Your task to perform on an android device: turn off priority inbox in the gmail app Image 0: 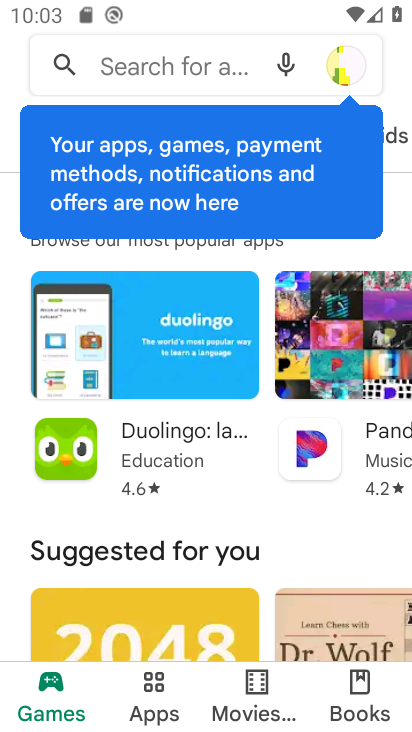
Step 0: press home button
Your task to perform on an android device: turn off priority inbox in the gmail app Image 1: 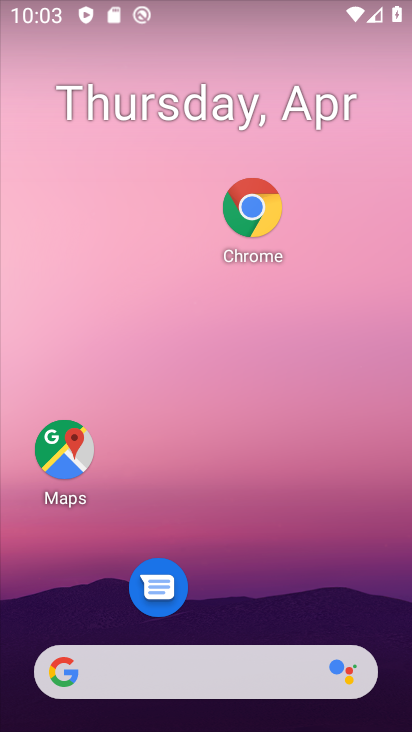
Step 1: drag from (213, 597) to (232, 132)
Your task to perform on an android device: turn off priority inbox in the gmail app Image 2: 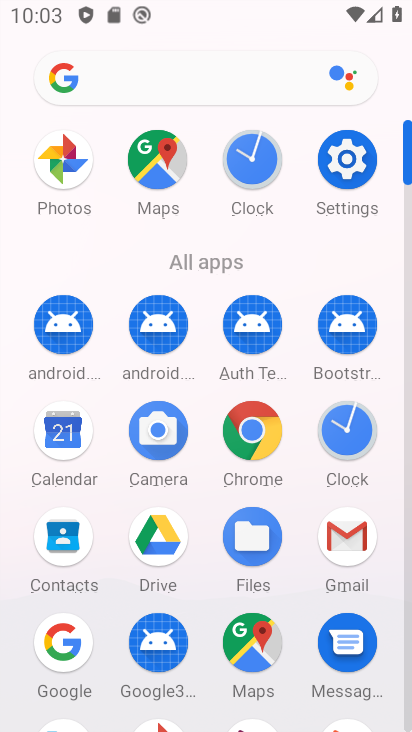
Step 2: click (335, 532)
Your task to perform on an android device: turn off priority inbox in the gmail app Image 3: 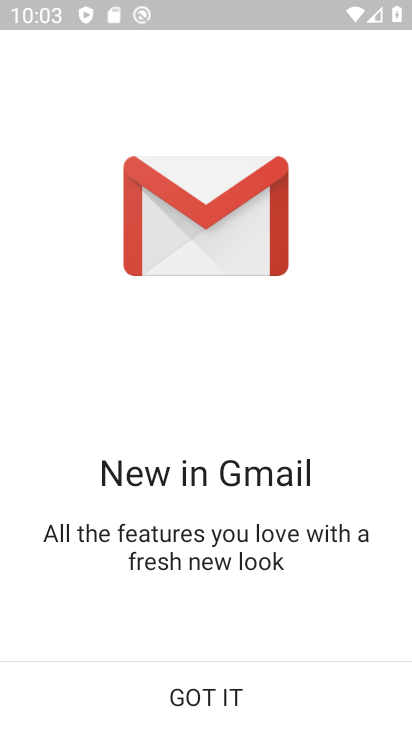
Step 3: click (222, 700)
Your task to perform on an android device: turn off priority inbox in the gmail app Image 4: 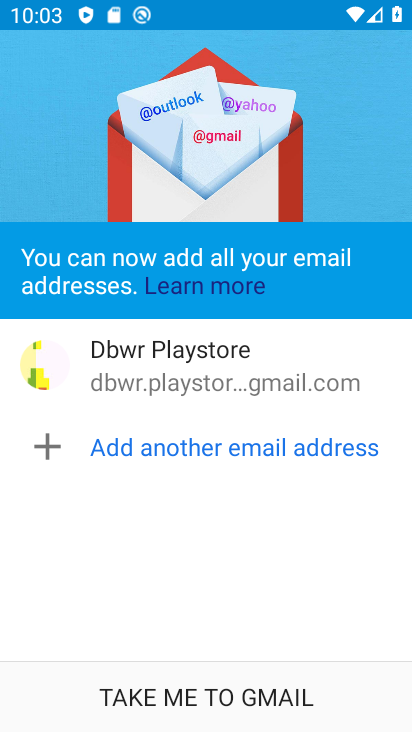
Step 4: click (222, 700)
Your task to perform on an android device: turn off priority inbox in the gmail app Image 5: 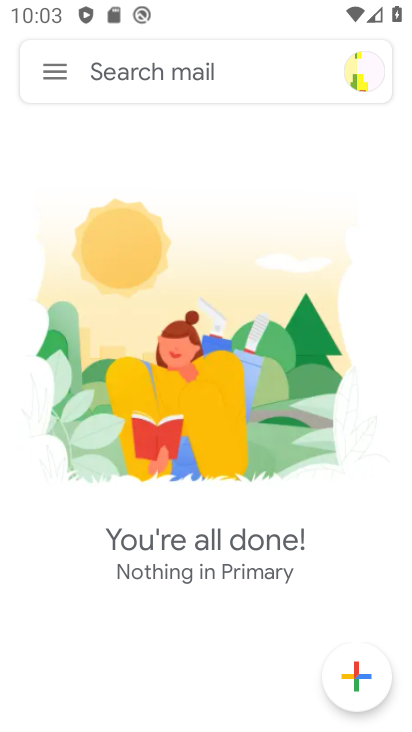
Step 5: click (50, 84)
Your task to perform on an android device: turn off priority inbox in the gmail app Image 6: 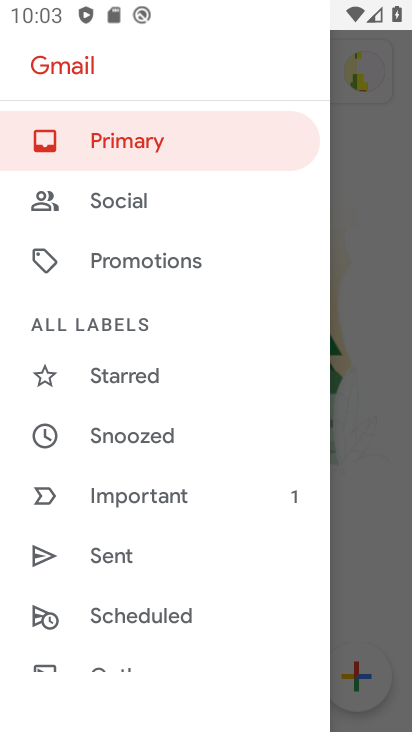
Step 6: drag from (166, 596) to (192, 277)
Your task to perform on an android device: turn off priority inbox in the gmail app Image 7: 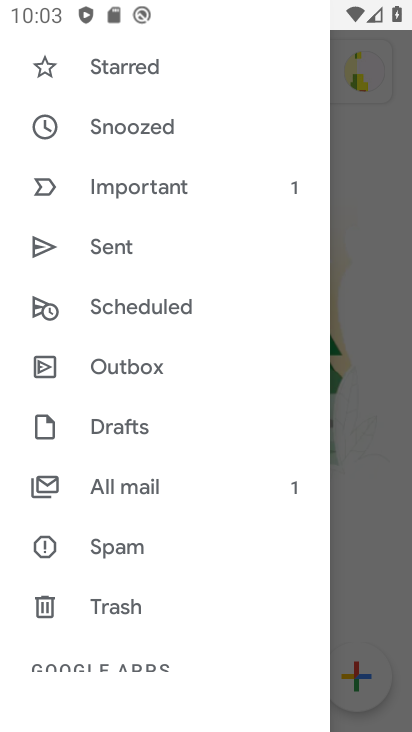
Step 7: drag from (164, 627) to (198, 304)
Your task to perform on an android device: turn off priority inbox in the gmail app Image 8: 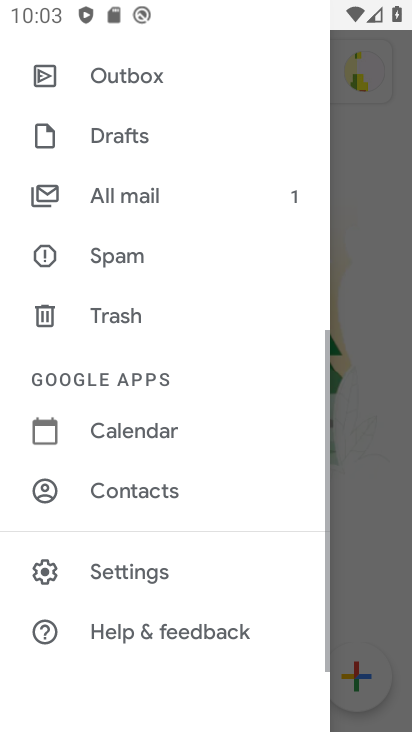
Step 8: click (143, 580)
Your task to perform on an android device: turn off priority inbox in the gmail app Image 9: 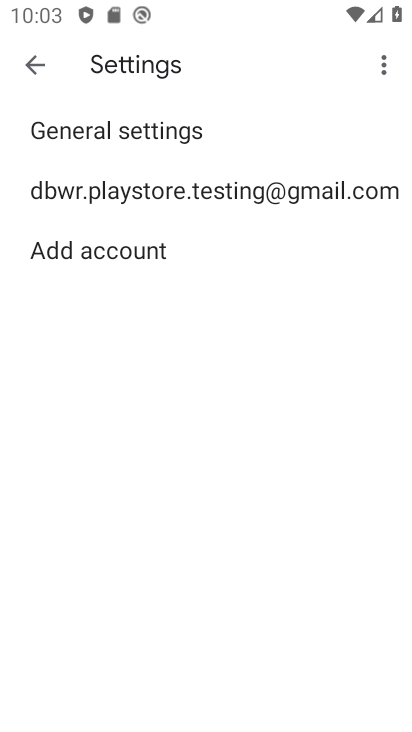
Step 9: click (167, 201)
Your task to perform on an android device: turn off priority inbox in the gmail app Image 10: 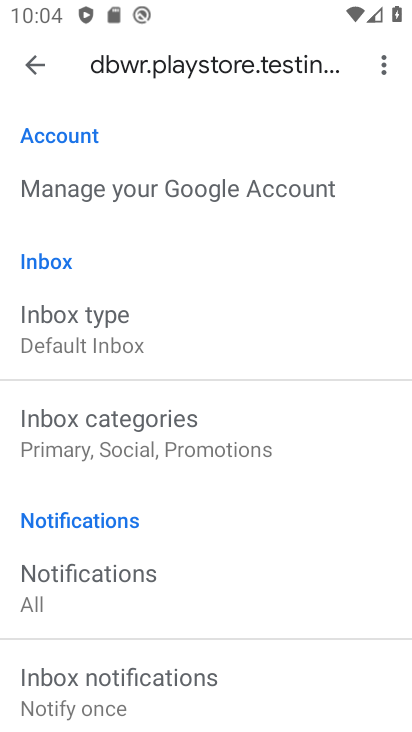
Step 10: click (144, 351)
Your task to perform on an android device: turn off priority inbox in the gmail app Image 11: 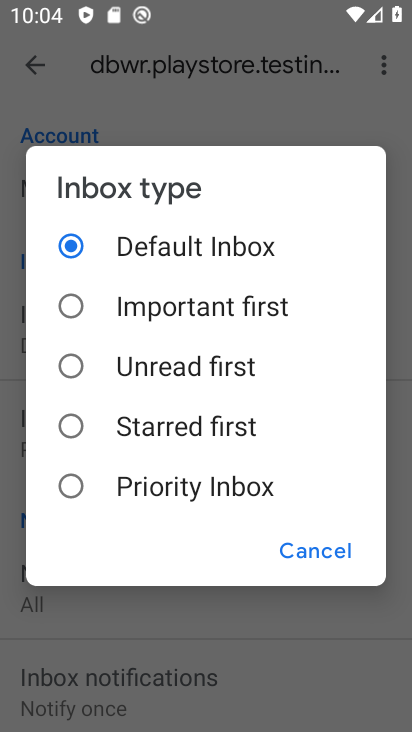
Step 11: task complete